Your task to perform on an android device: Clear the cart on walmart. Image 0: 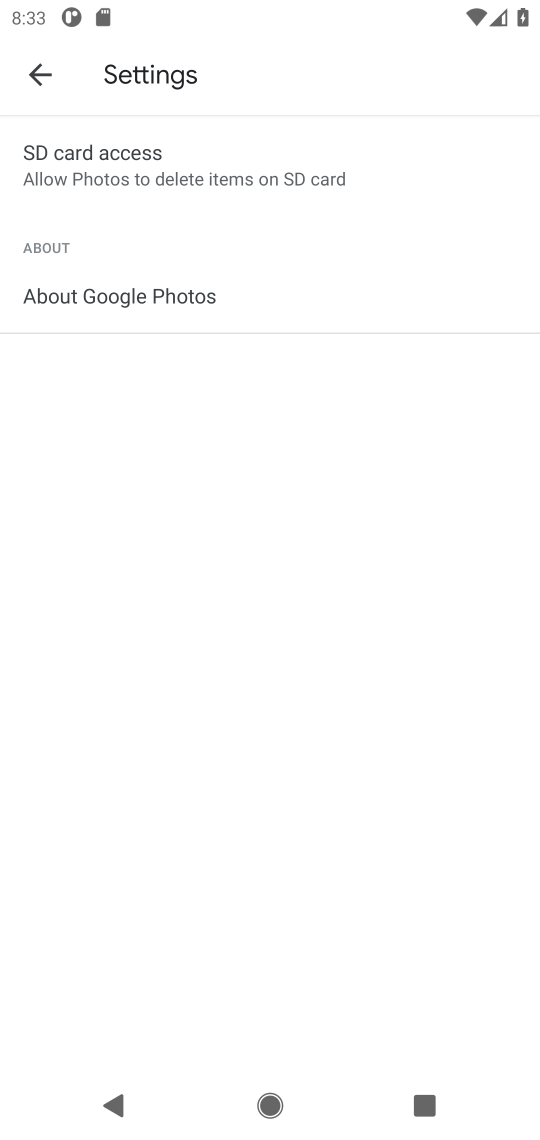
Step 0: press home button
Your task to perform on an android device: Clear the cart on walmart. Image 1: 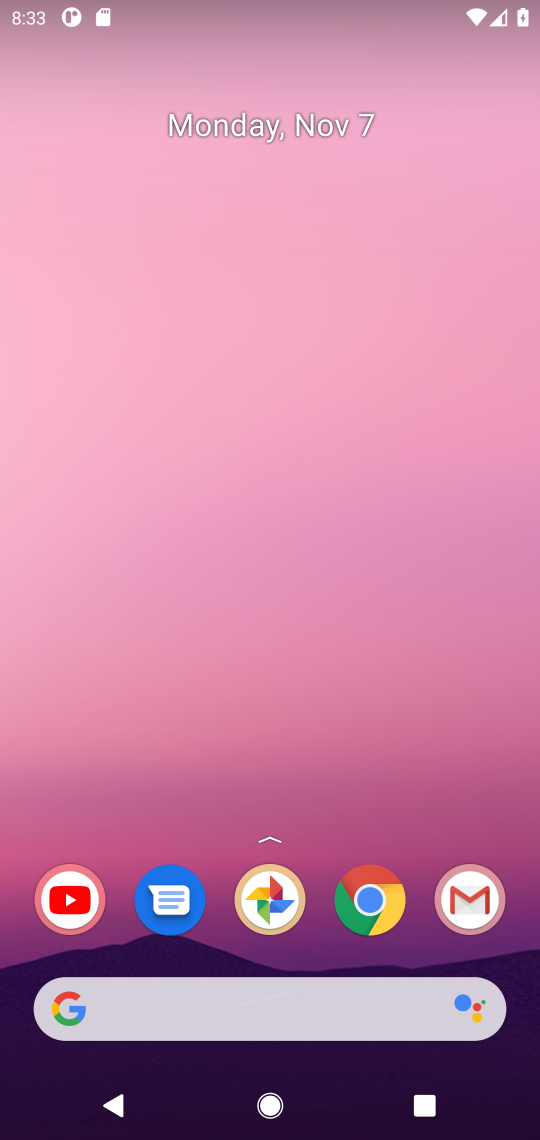
Step 1: drag from (321, 939) to (321, 522)
Your task to perform on an android device: Clear the cart on walmart. Image 2: 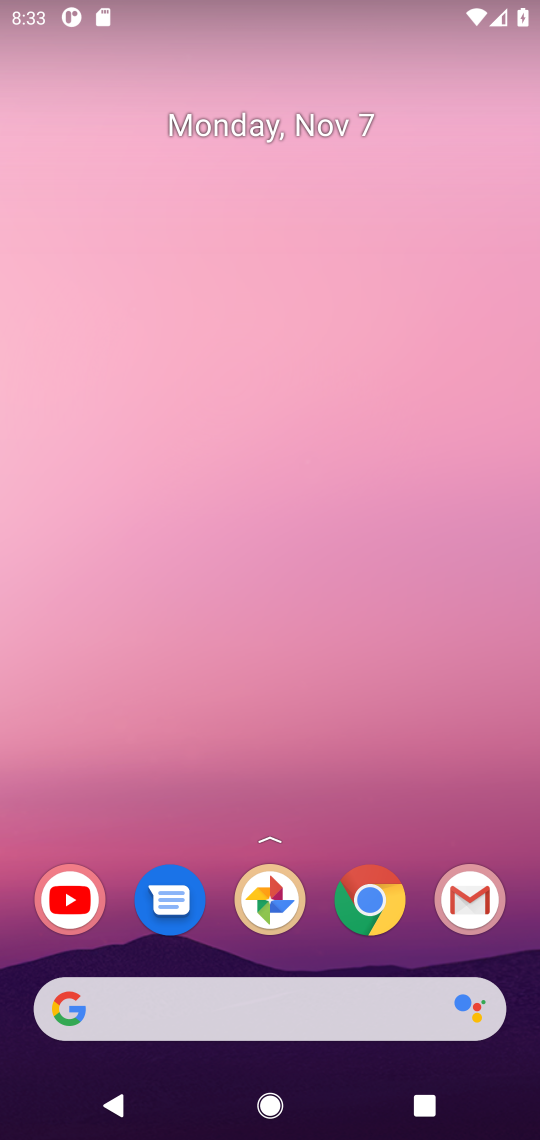
Step 2: drag from (349, 865) to (348, 567)
Your task to perform on an android device: Clear the cart on walmart. Image 3: 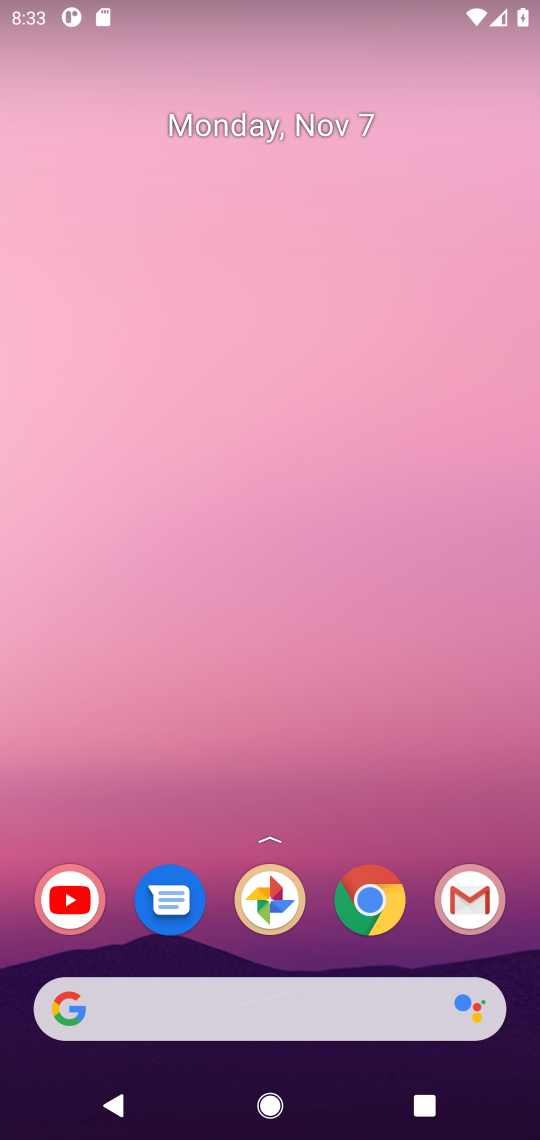
Step 3: drag from (255, 891) to (321, 526)
Your task to perform on an android device: Clear the cart on walmart. Image 4: 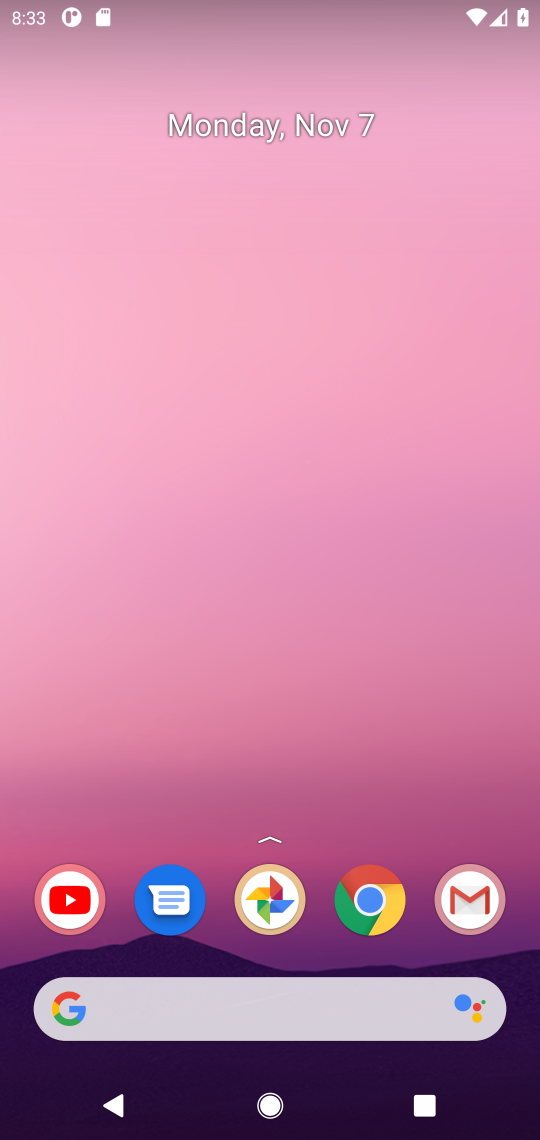
Step 4: drag from (233, 935) to (268, 185)
Your task to perform on an android device: Clear the cart on walmart. Image 5: 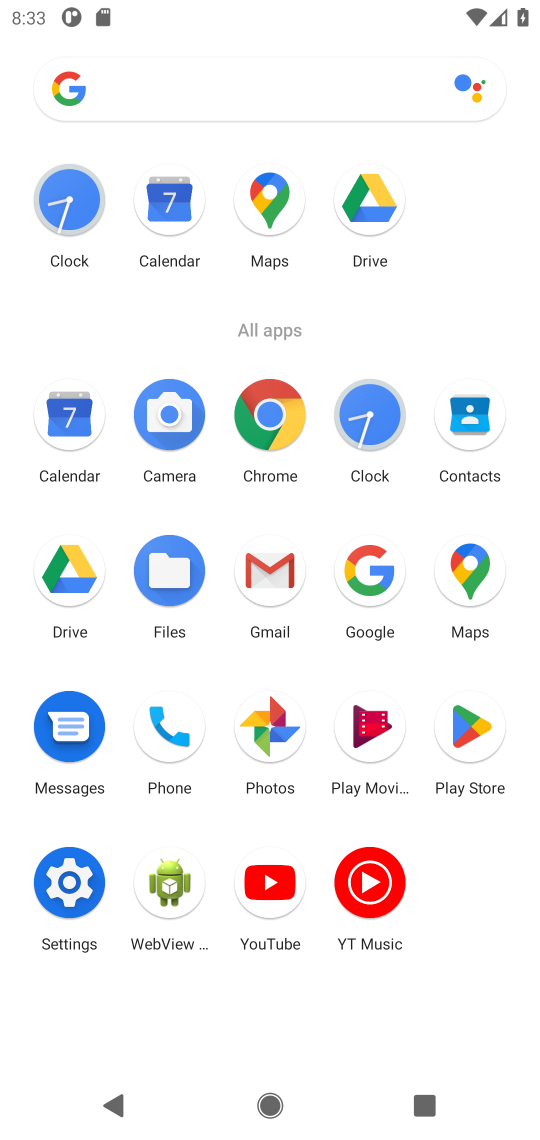
Step 5: click (341, 565)
Your task to perform on an android device: Clear the cart on walmart. Image 6: 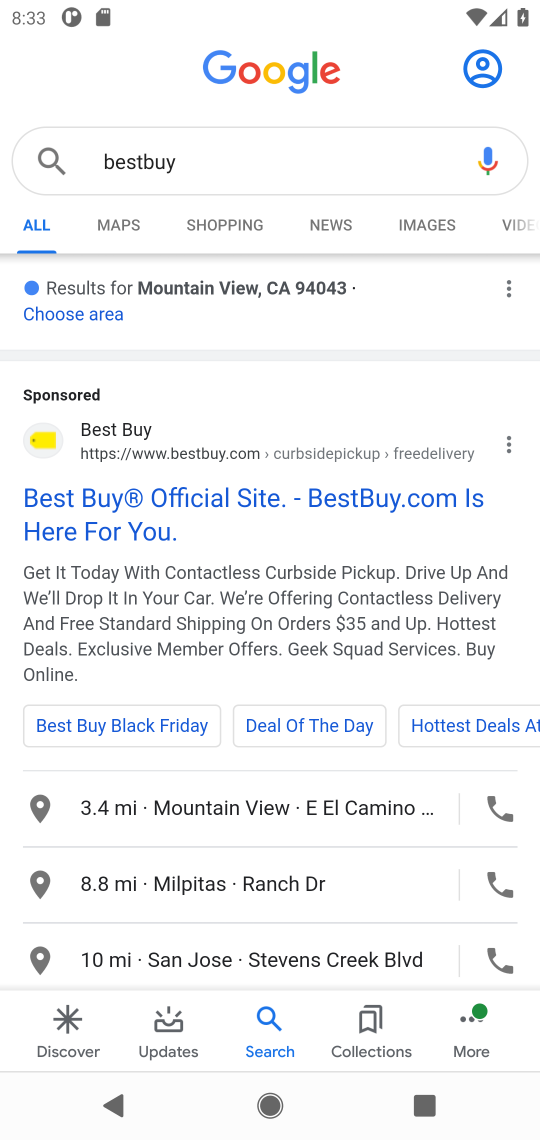
Step 6: click (254, 168)
Your task to perform on an android device: Clear the cart on walmart. Image 7: 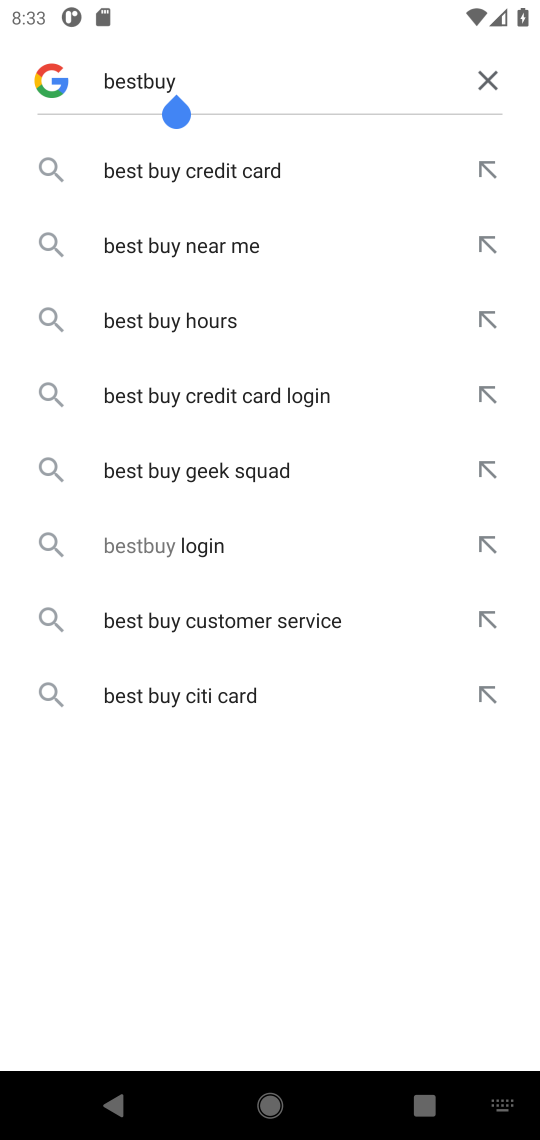
Step 7: click (494, 93)
Your task to perform on an android device: Clear the cart on walmart. Image 8: 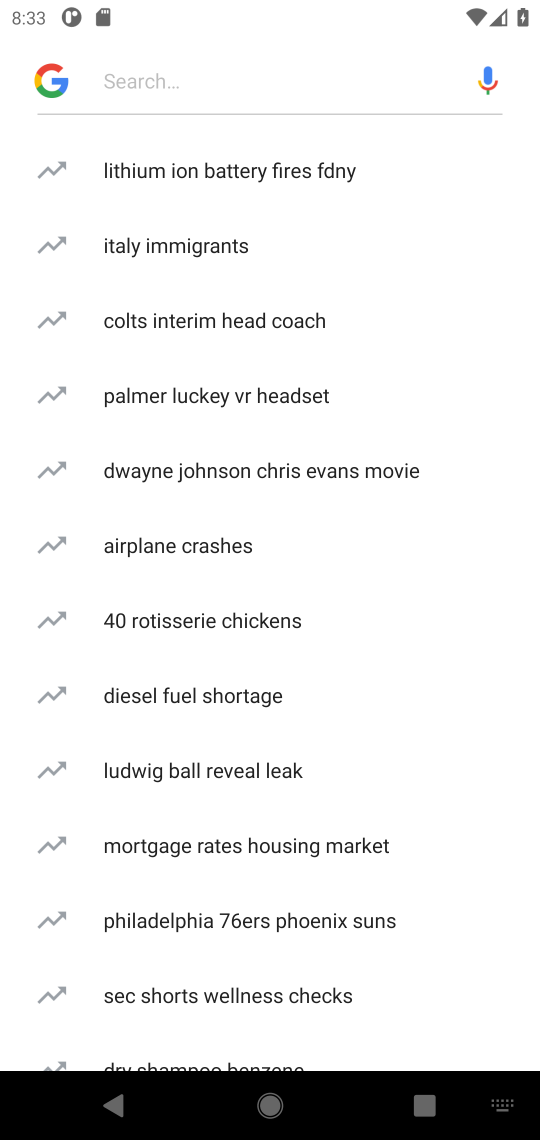
Step 8: type "walmart"
Your task to perform on an android device: Clear the cart on walmart. Image 9: 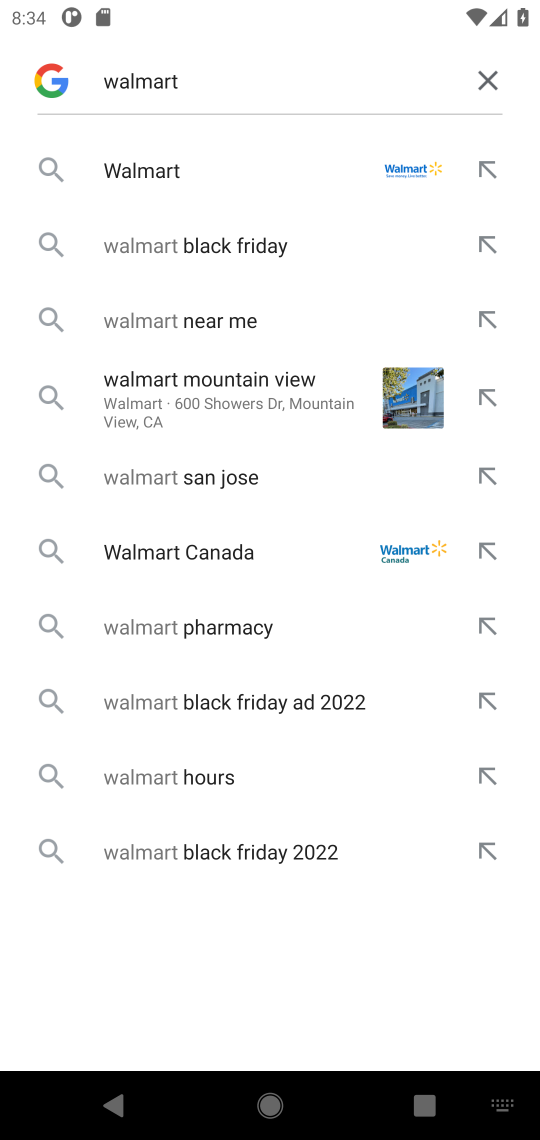
Step 9: click (280, 164)
Your task to perform on an android device: Clear the cart on walmart. Image 10: 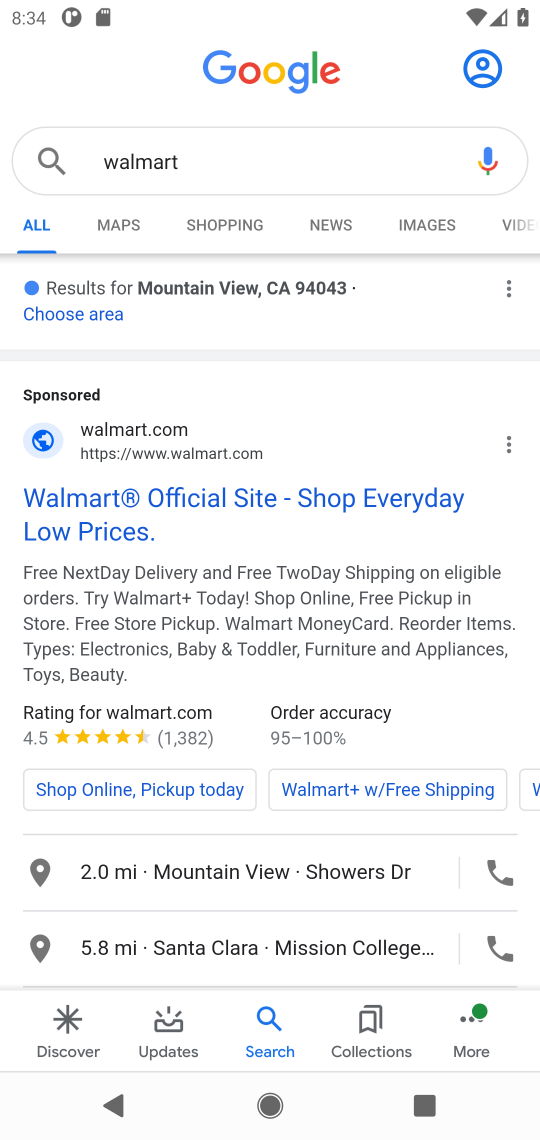
Step 10: click (164, 522)
Your task to perform on an android device: Clear the cart on walmart. Image 11: 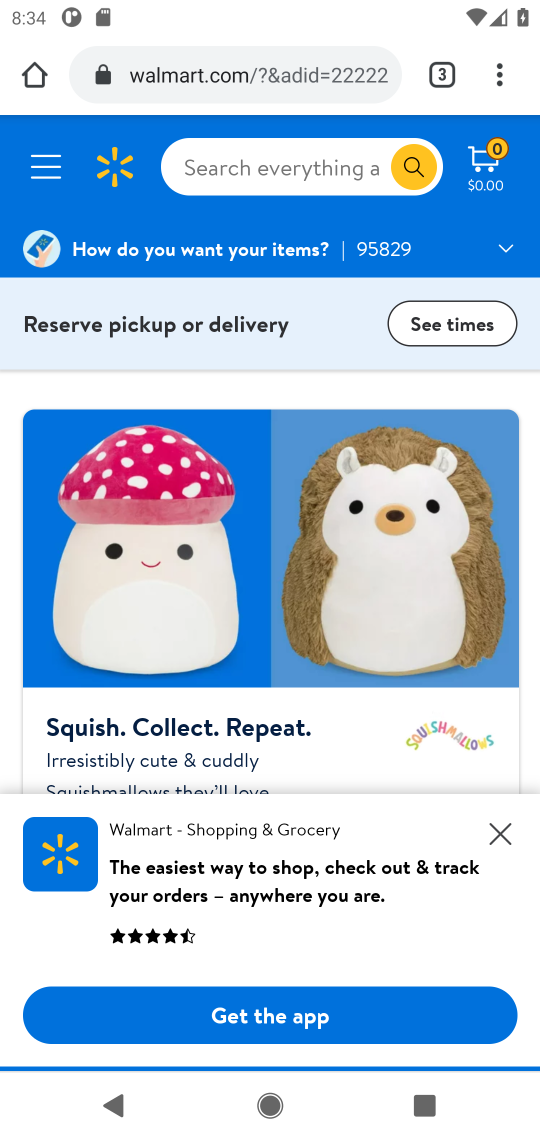
Step 11: click (499, 161)
Your task to perform on an android device: Clear the cart on walmart. Image 12: 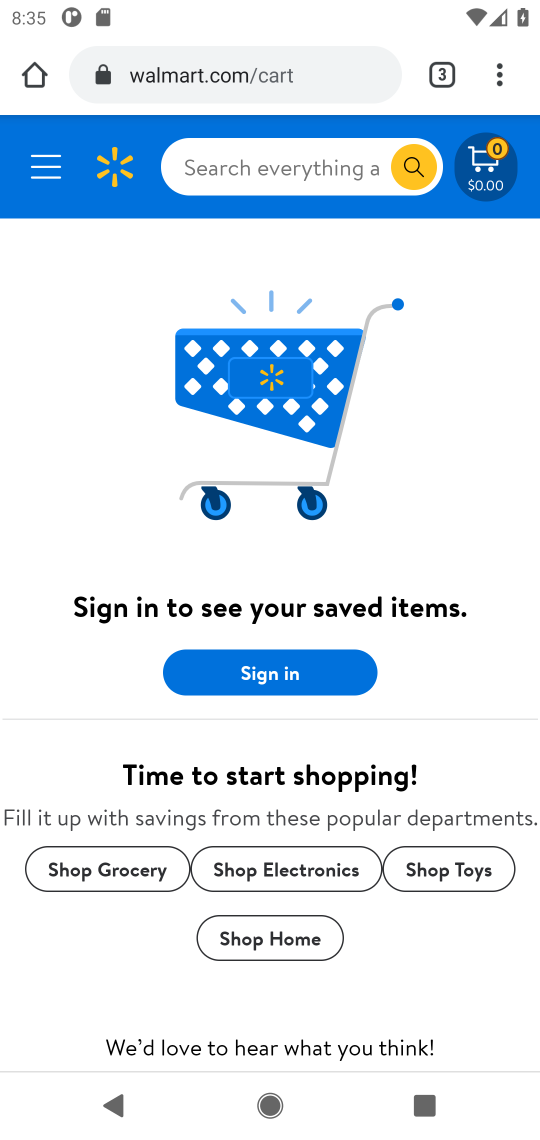
Step 12: task complete